Your task to perform on an android device: change keyboard looks Image 0: 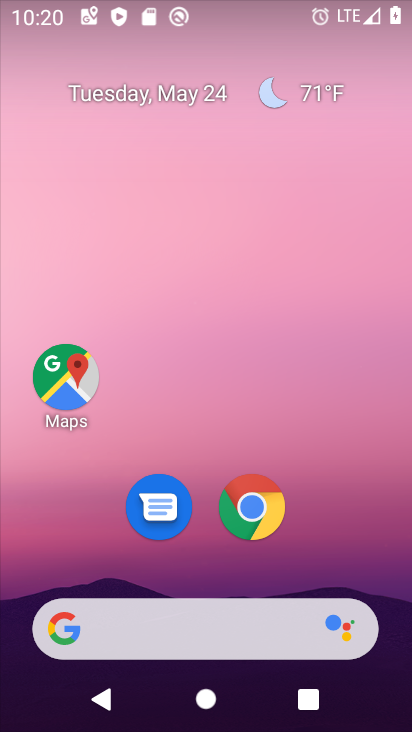
Step 0: drag from (233, 725) to (232, 129)
Your task to perform on an android device: change keyboard looks Image 1: 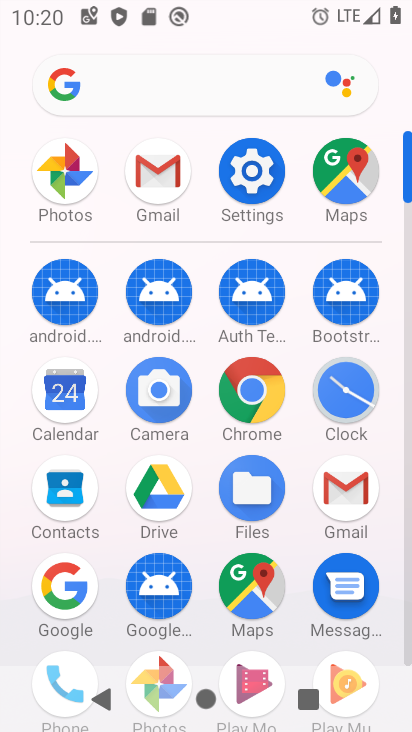
Step 1: click (257, 171)
Your task to perform on an android device: change keyboard looks Image 2: 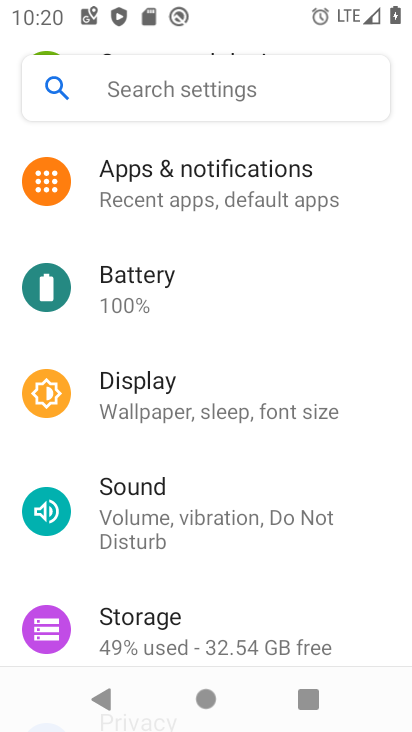
Step 2: drag from (239, 648) to (251, 190)
Your task to perform on an android device: change keyboard looks Image 3: 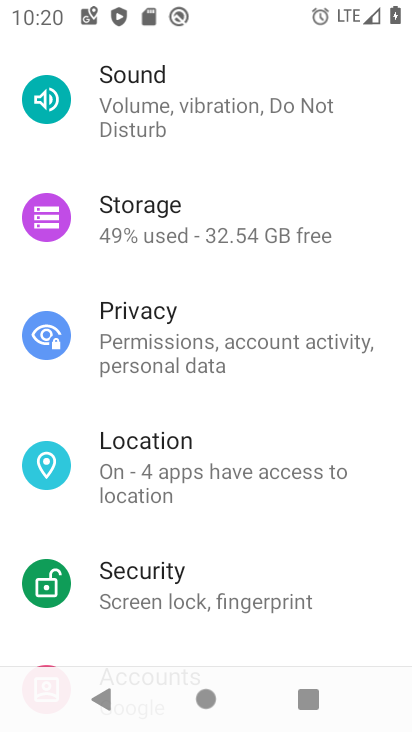
Step 3: drag from (236, 644) to (238, 269)
Your task to perform on an android device: change keyboard looks Image 4: 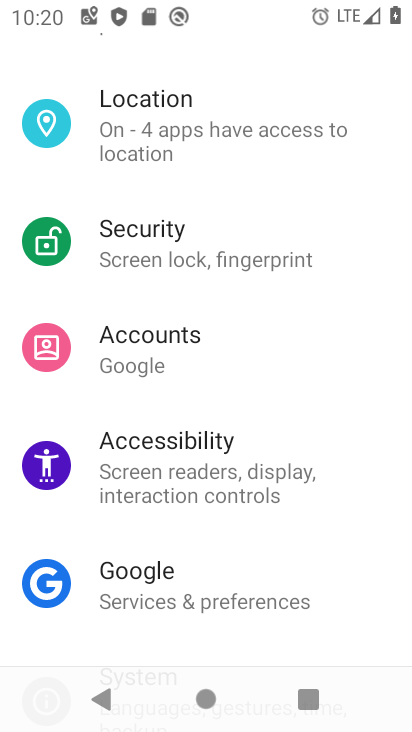
Step 4: drag from (215, 599) to (220, 202)
Your task to perform on an android device: change keyboard looks Image 5: 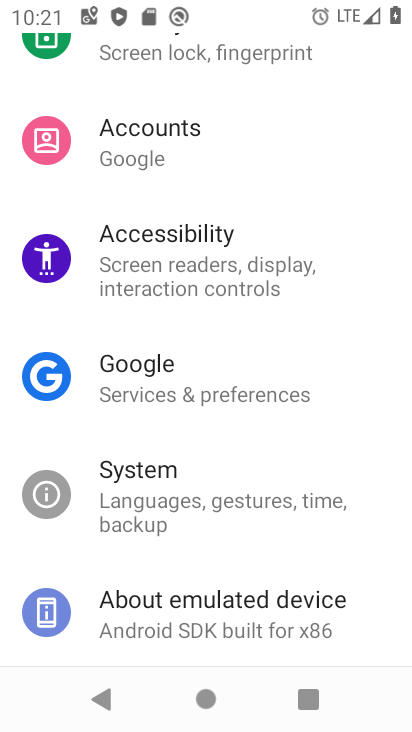
Step 5: click (167, 498)
Your task to perform on an android device: change keyboard looks Image 6: 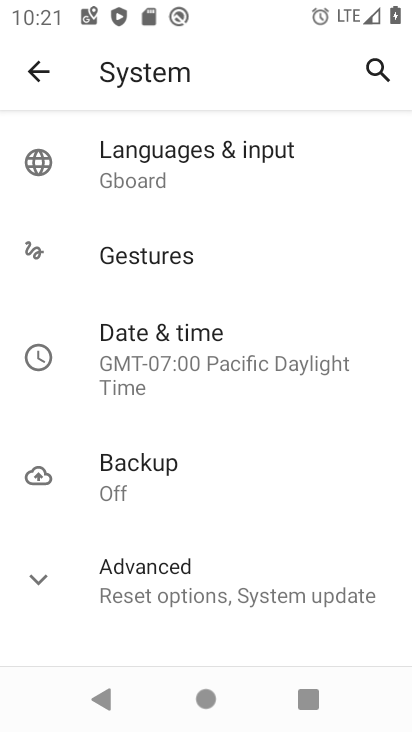
Step 6: click (172, 163)
Your task to perform on an android device: change keyboard looks Image 7: 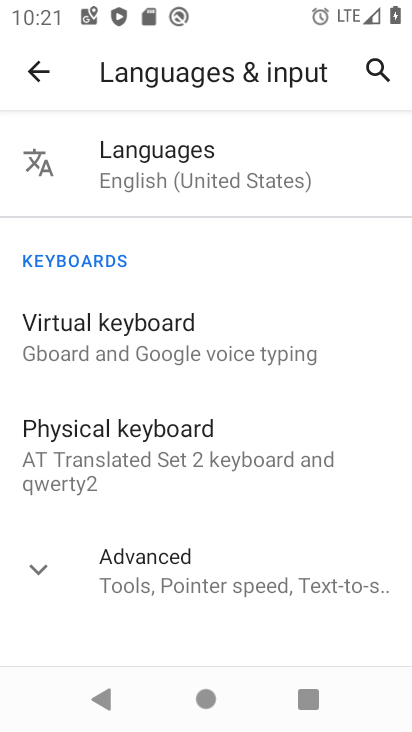
Step 7: click (116, 346)
Your task to perform on an android device: change keyboard looks Image 8: 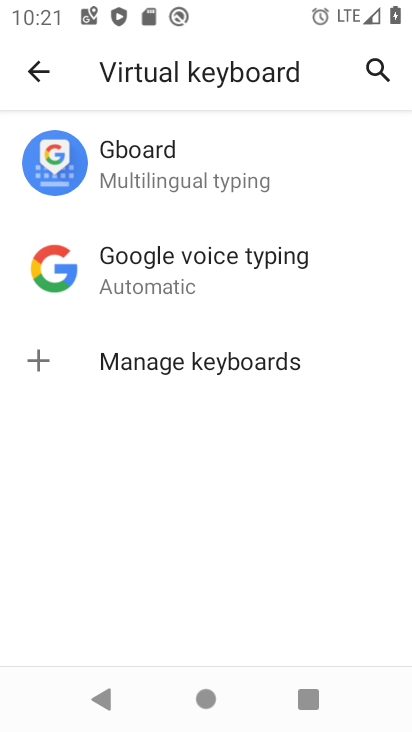
Step 8: click (149, 166)
Your task to perform on an android device: change keyboard looks Image 9: 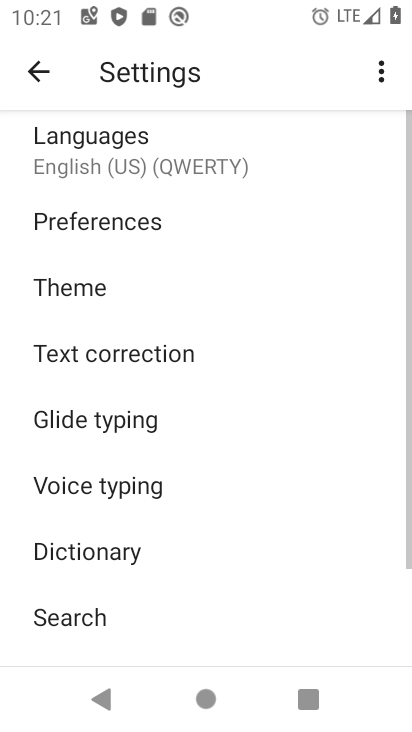
Step 9: click (78, 285)
Your task to perform on an android device: change keyboard looks Image 10: 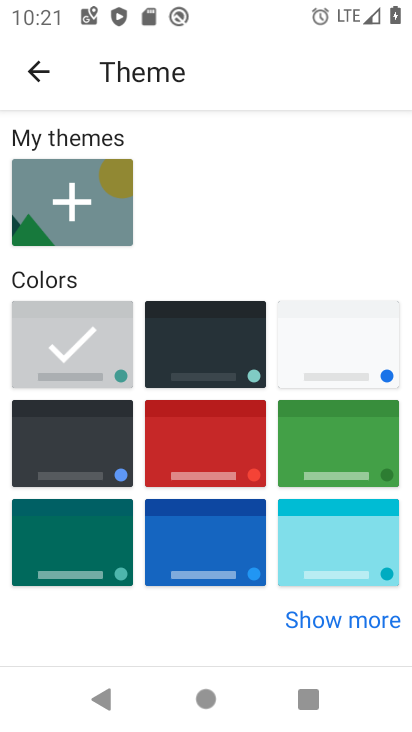
Step 10: click (230, 350)
Your task to perform on an android device: change keyboard looks Image 11: 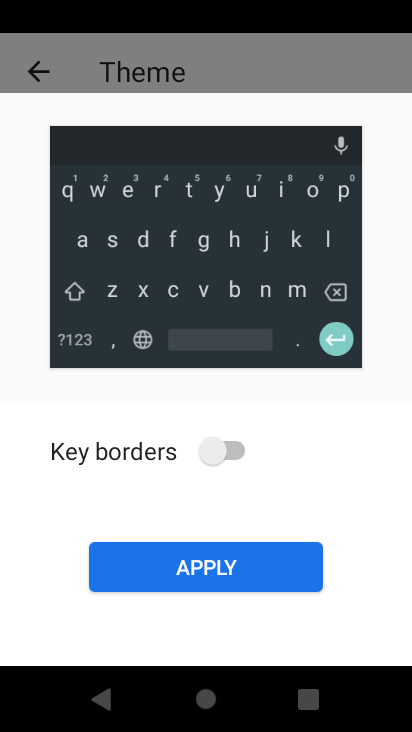
Step 11: click (237, 446)
Your task to perform on an android device: change keyboard looks Image 12: 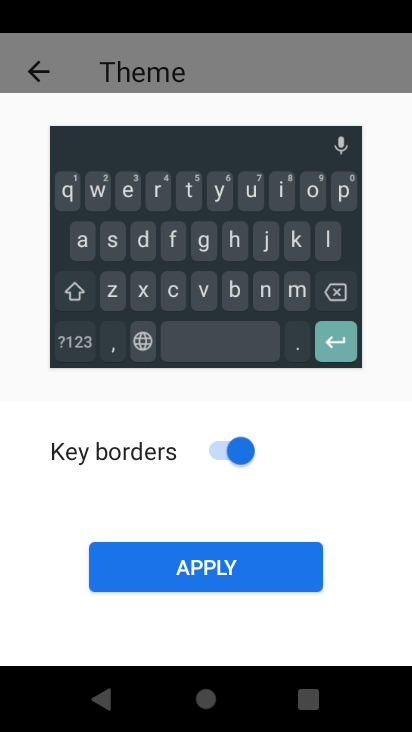
Step 12: click (268, 565)
Your task to perform on an android device: change keyboard looks Image 13: 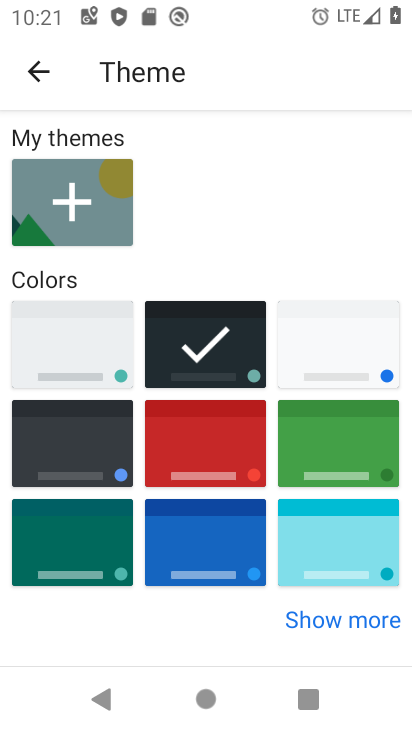
Step 13: task complete